Your task to perform on an android device: change the clock style Image 0: 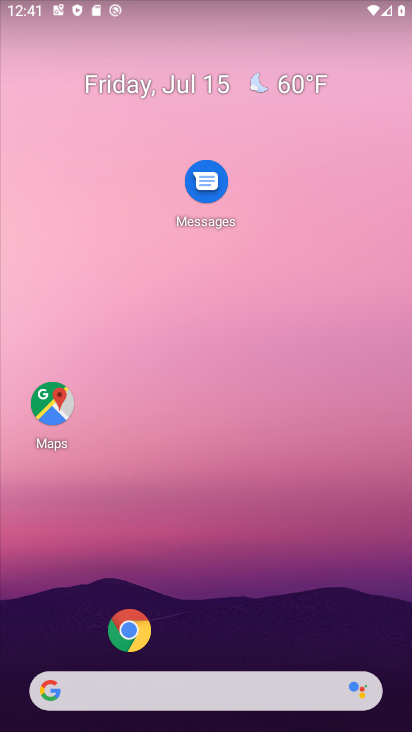
Step 0: drag from (17, 693) to (198, 35)
Your task to perform on an android device: change the clock style Image 1: 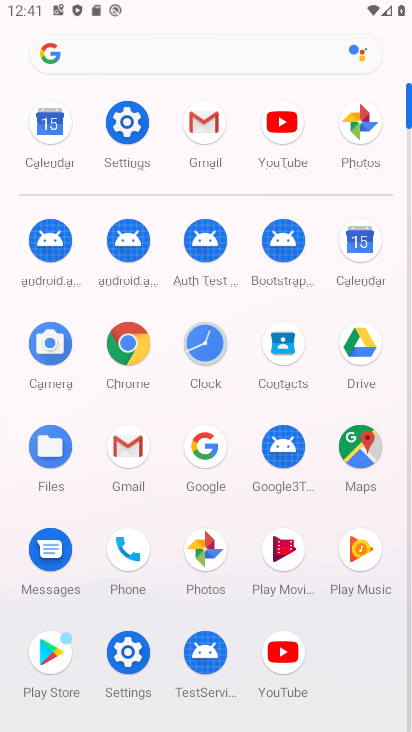
Step 1: click (206, 348)
Your task to perform on an android device: change the clock style Image 2: 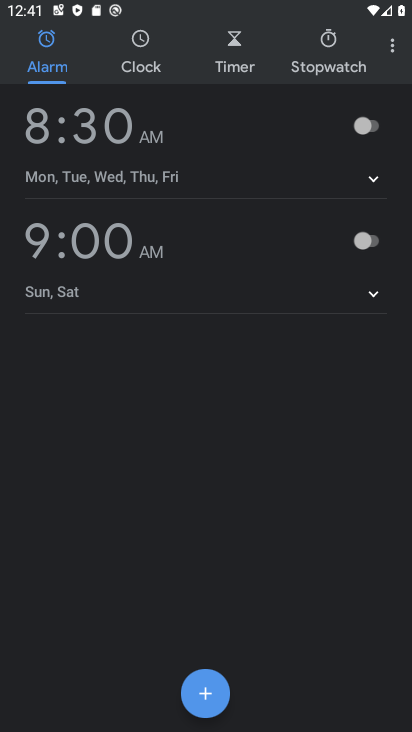
Step 2: click (140, 62)
Your task to perform on an android device: change the clock style Image 3: 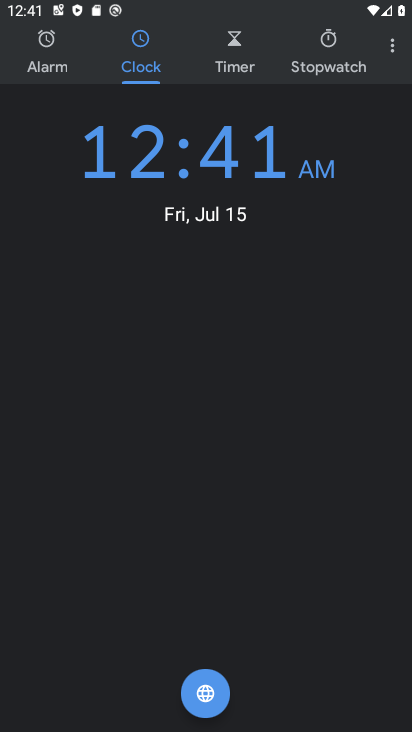
Step 3: click (387, 43)
Your task to perform on an android device: change the clock style Image 4: 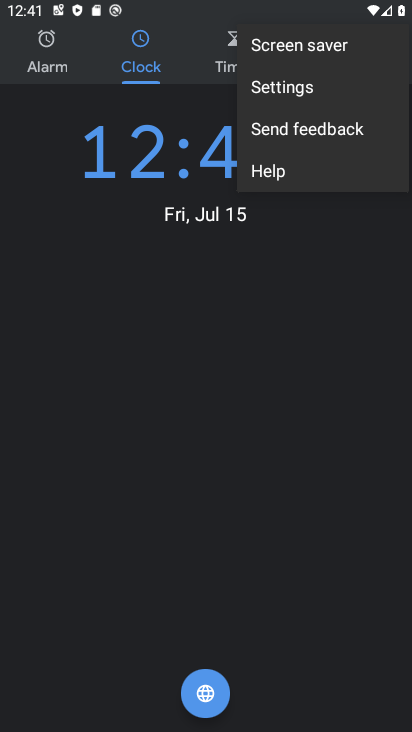
Step 4: click (300, 88)
Your task to perform on an android device: change the clock style Image 5: 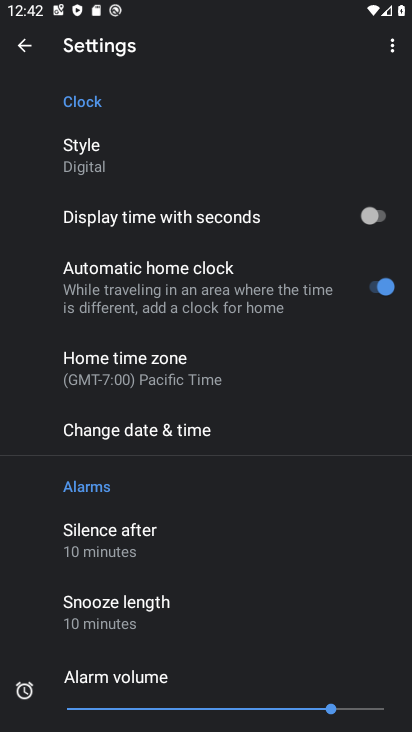
Step 5: click (82, 161)
Your task to perform on an android device: change the clock style Image 6: 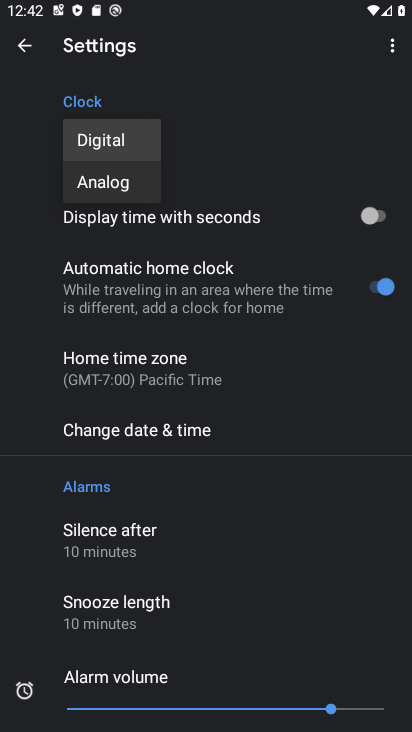
Step 6: click (102, 192)
Your task to perform on an android device: change the clock style Image 7: 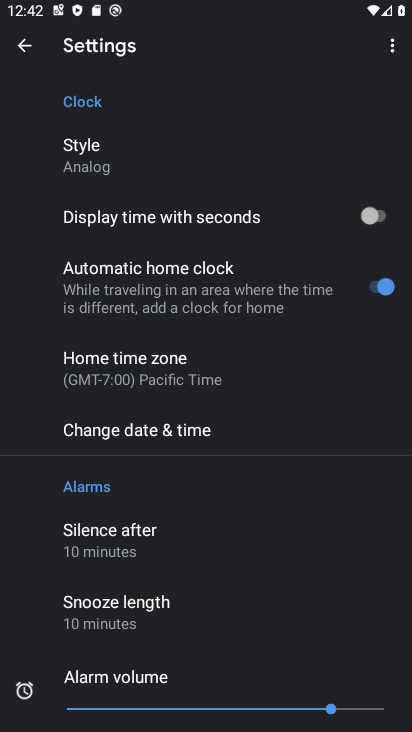
Step 7: task complete